Your task to perform on an android device: find photos in the google photos app Image 0: 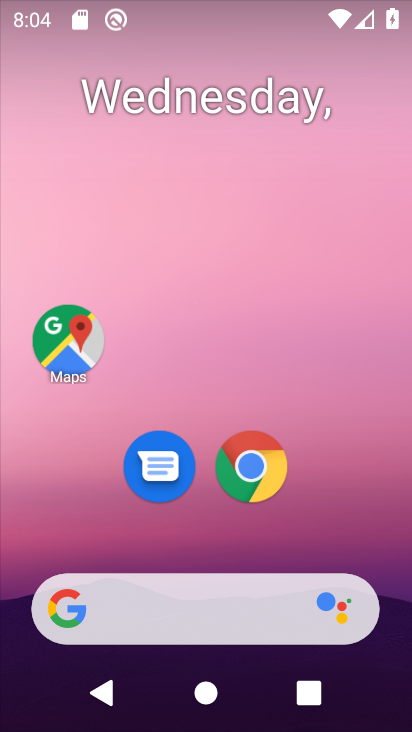
Step 0: drag from (231, 720) to (246, 191)
Your task to perform on an android device: find photos in the google photos app Image 1: 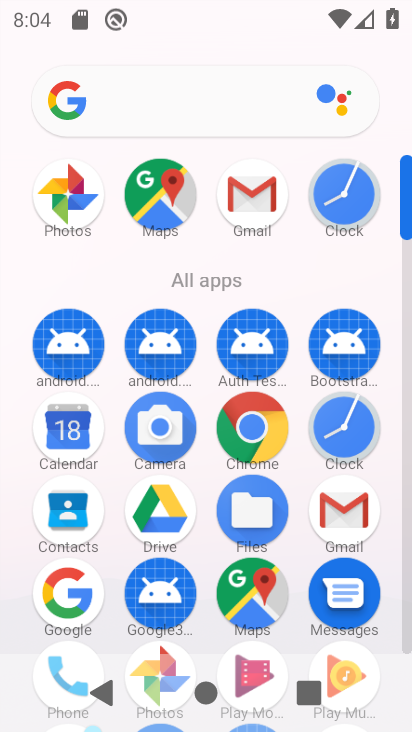
Step 1: click (158, 649)
Your task to perform on an android device: find photos in the google photos app Image 2: 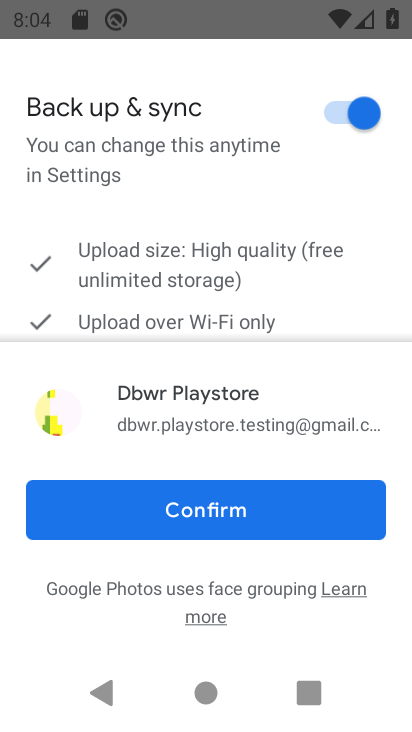
Step 2: click (218, 508)
Your task to perform on an android device: find photos in the google photos app Image 3: 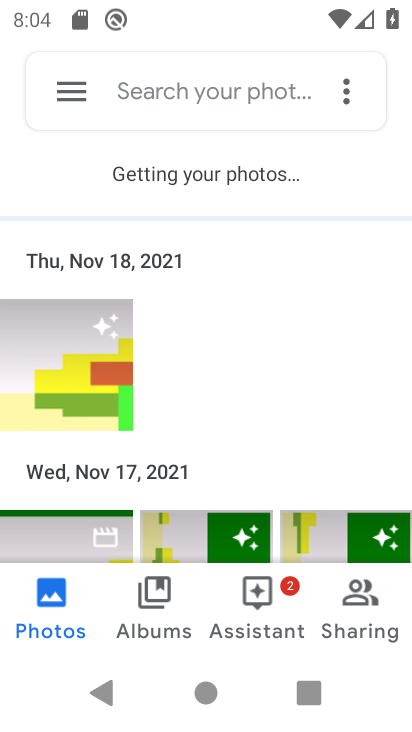
Step 3: click (61, 358)
Your task to perform on an android device: find photos in the google photos app Image 4: 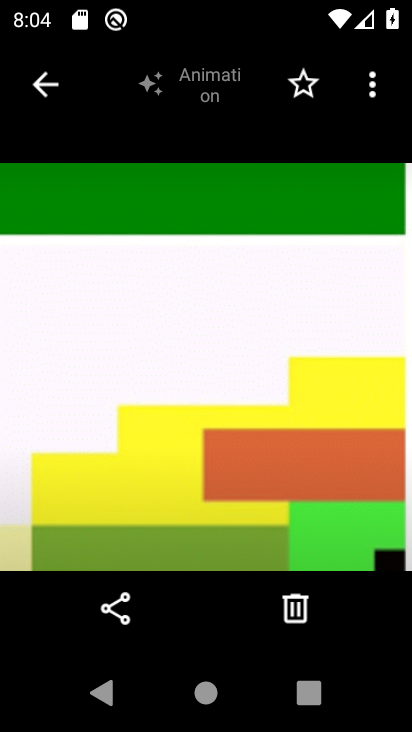
Step 4: task complete